Your task to perform on an android device: open a bookmark in the chrome app Image 0: 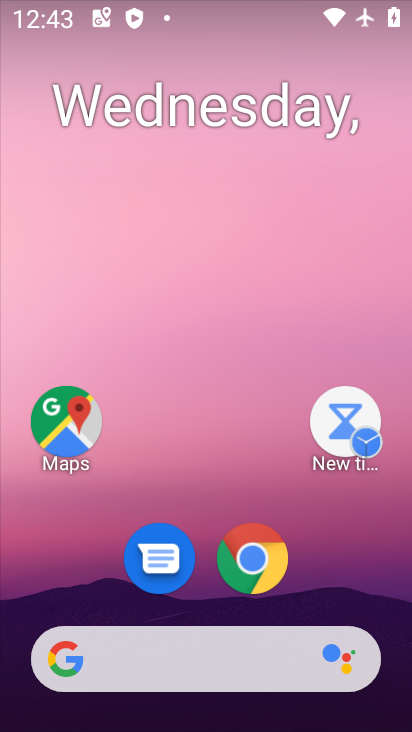
Step 0: drag from (302, 675) to (140, 45)
Your task to perform on an android device: open a bookmark in the chrome app Image 1: 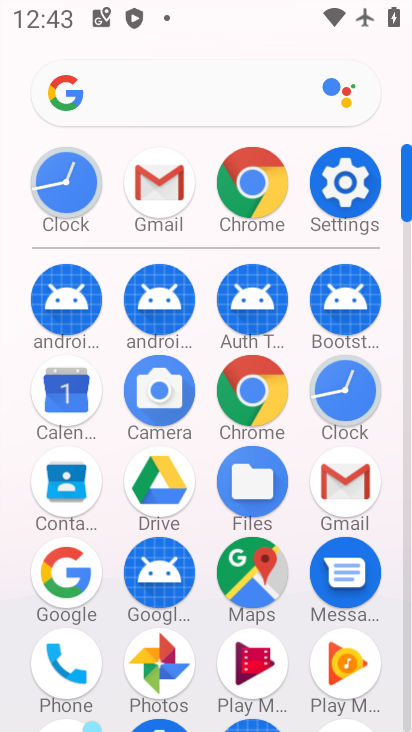
Step 1: click (256, 182)
Your task to perform on an android device: open a bookmark in the chrome app Image 2: 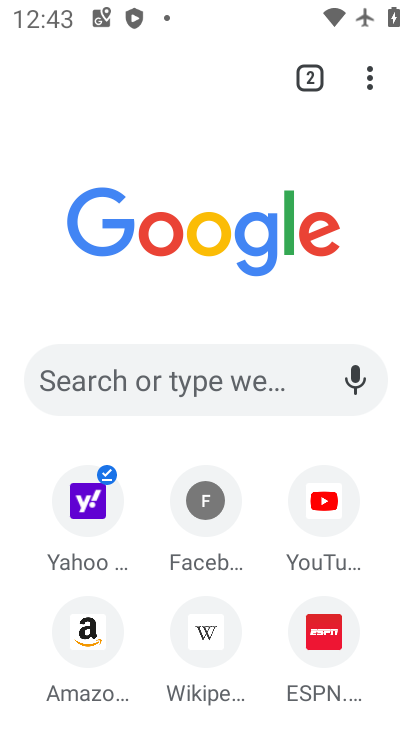
Step 2: press back button
Your task to perform on an android device: open a bookmark in the chrome app Image 3: 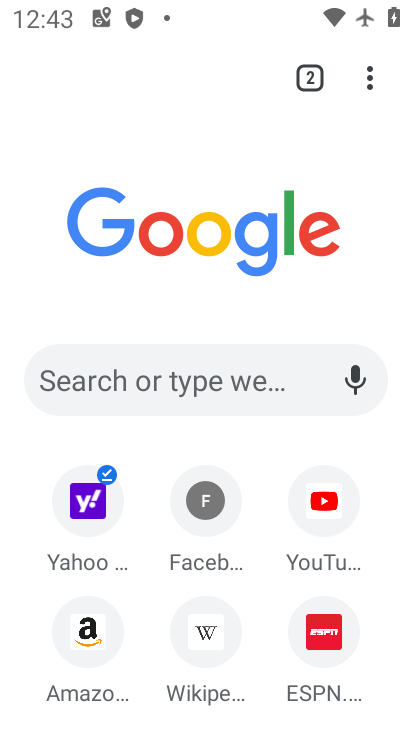
Step 3: press back button
Your task to perform on an android device: open a bookmark in the chrome app Image 4: 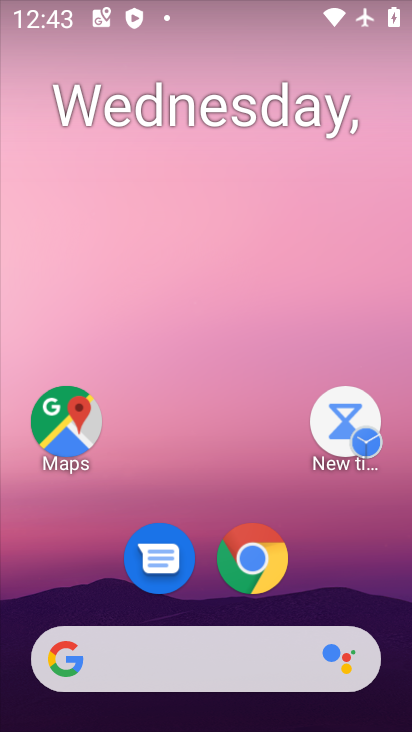
Step 4: press back button
Your task to perform on an android device: open a bookmark in the chrome app Image 5: 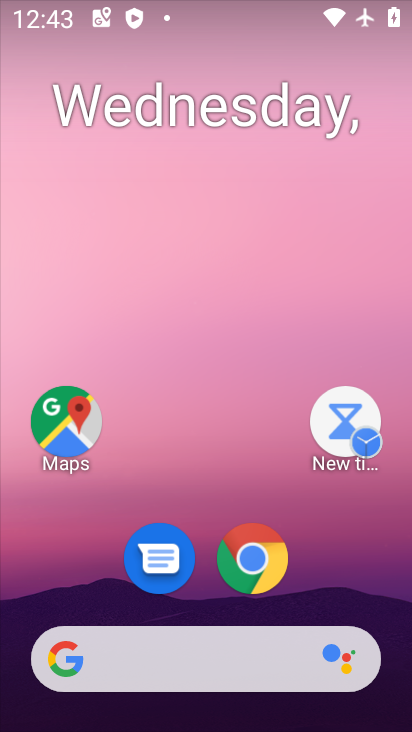
Step 5: press back button
Your task to perform on an android device: open a bookmark in the chrome app Image 6: 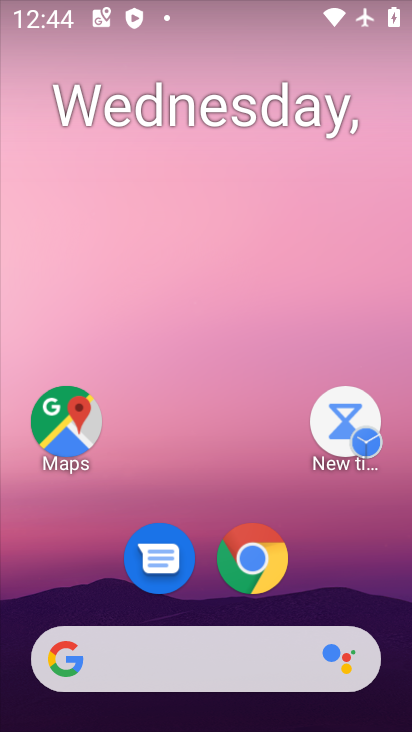
Step 6: click (184, 210)
Your task to perform on an android device: open a bookmark in the chrome app Image 7: 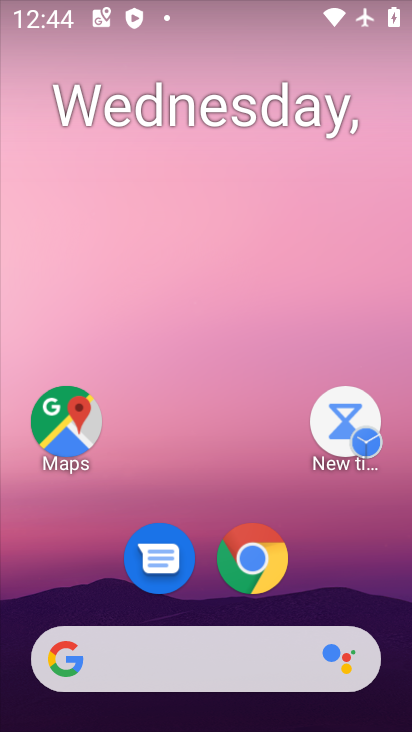
Step 7: drag from (220, 609) to (186, 262)
Your task to perform on an android device: open a bookmark in the chrome app Image 8: 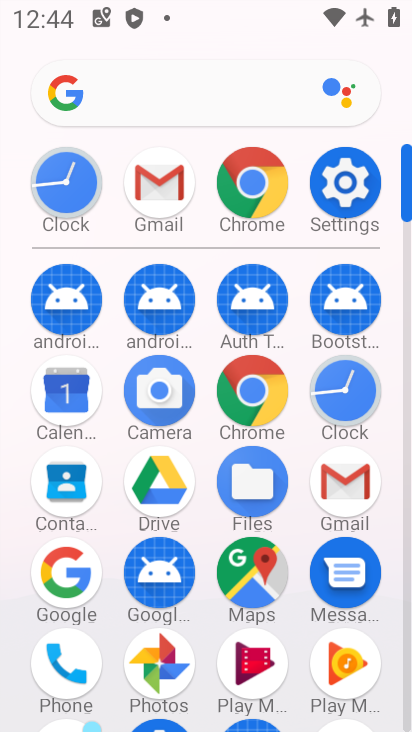
Step 8: click (248, 184)
Your task to perform on an android device: open a bookmark in the chrome app Image 9: 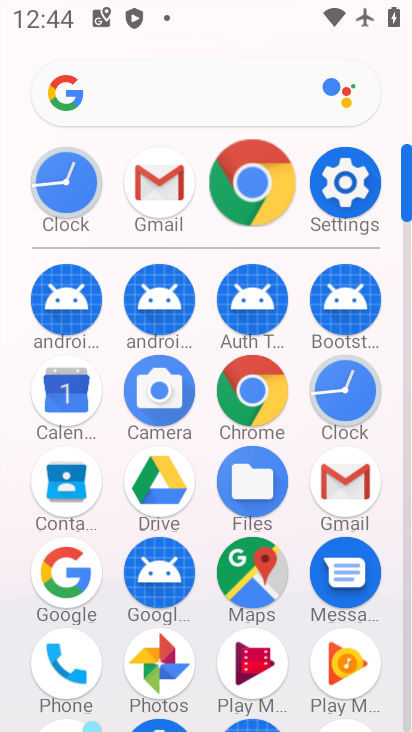
Step 9: click (251, 183)
Your task to perform on an android device: open a bookmark in the chrome app Image 10: 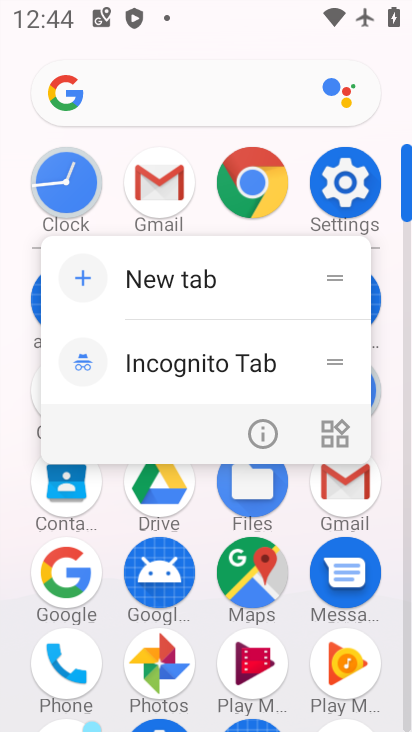
Step 10: click (252, 182)
Your task to perform on an android device: open a bookmark in the chrome app Image 11: 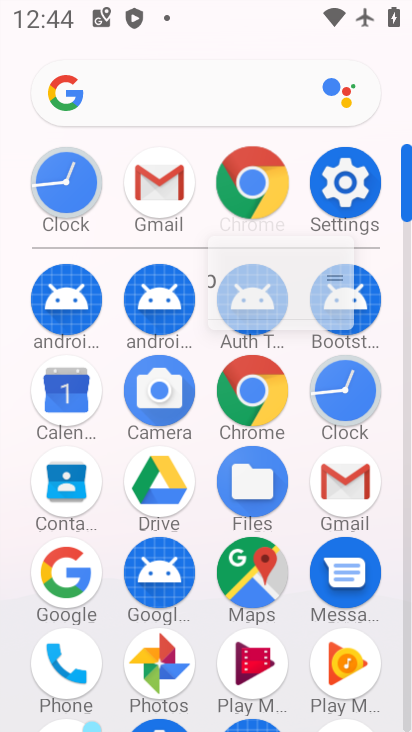
Step 11: click (252, 182)
Your task to perform on an android device: open a bookmark in the chrome app Image 12: 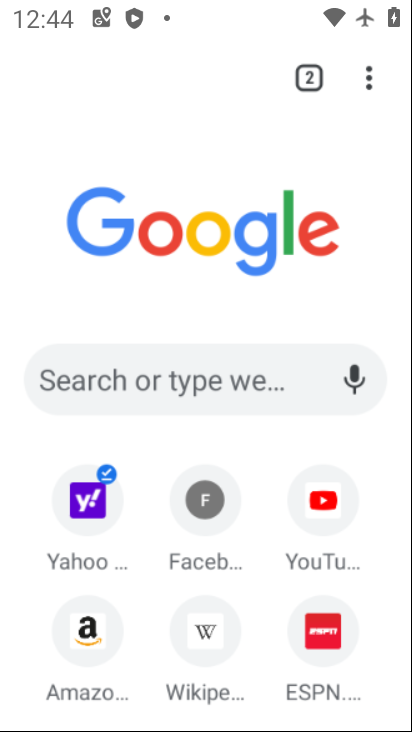
Step 12: click (248, 195)
Your task to perform on an android device: open a bookmark in the chrome app Image 13: 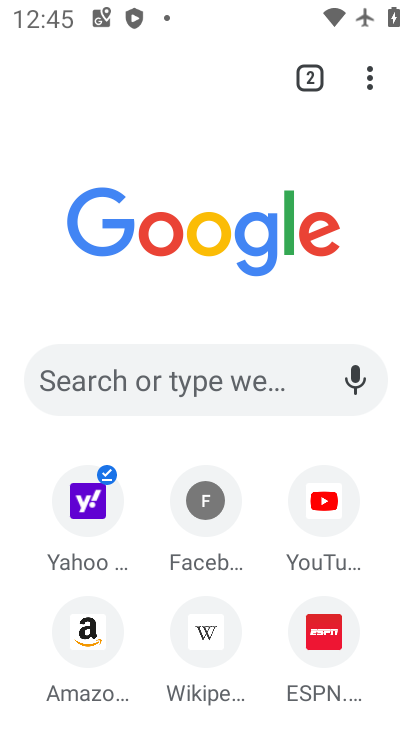
Step 13: click (369, 83)
Your task to perform on an android device: open a bookmark in the chrome app Image 14: 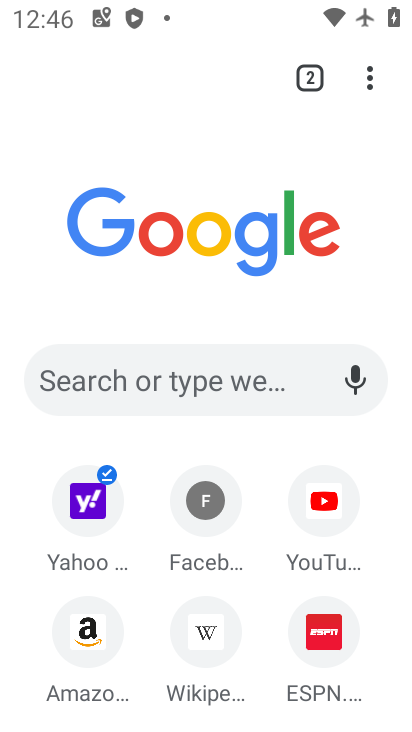
Step 14: click (367, 87)
Your task to perform on an android device: open a bookmark in the chrome app Image 15: 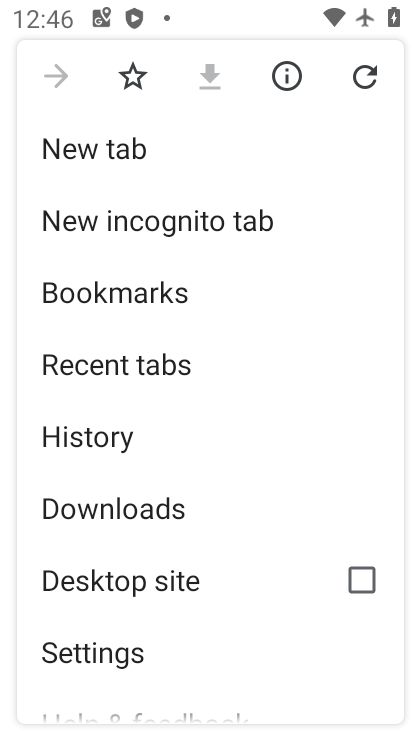
Step 15: drag from (116, 496) to (102, 176)
Your task to perform on an android device: open a bookmark in the chrome app Image 16: 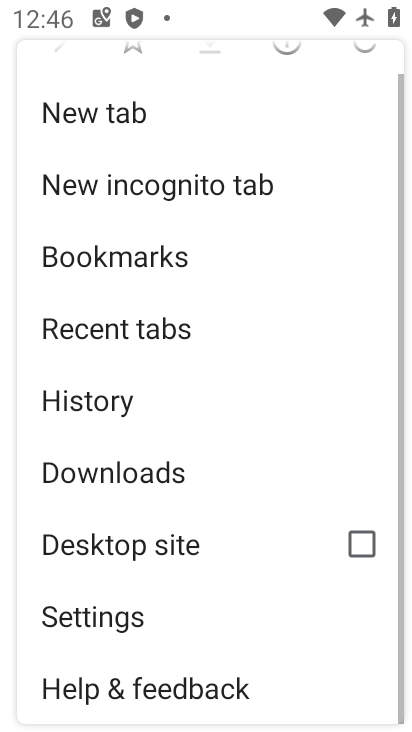
Step 16: click (119, 283)
Your task to perform on an android device: open a bookmark in the chrome app Image 17: 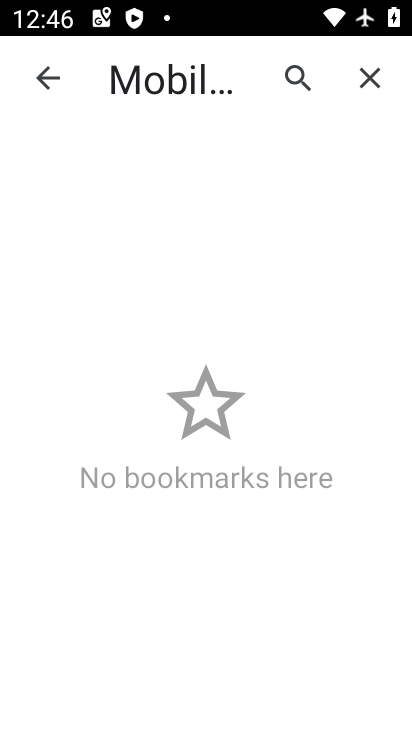
Step 17: click (119, 260)
Your task to perform on an android device: open a bookmark in the chrome app Image 18: 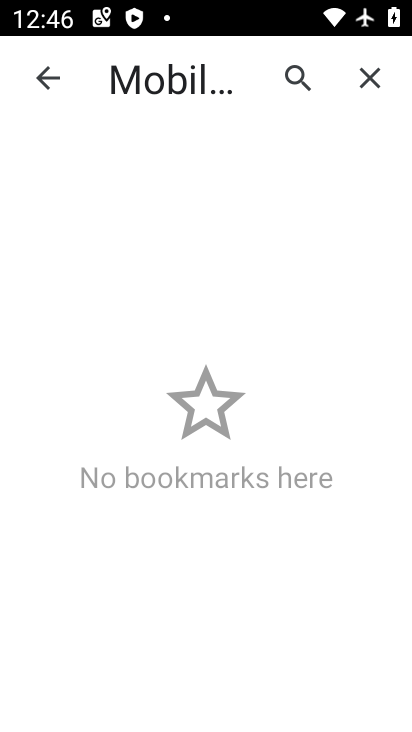
Step 18: task complete